Your task to perform on an android device: toggle pop-ups in chrome Image 0: 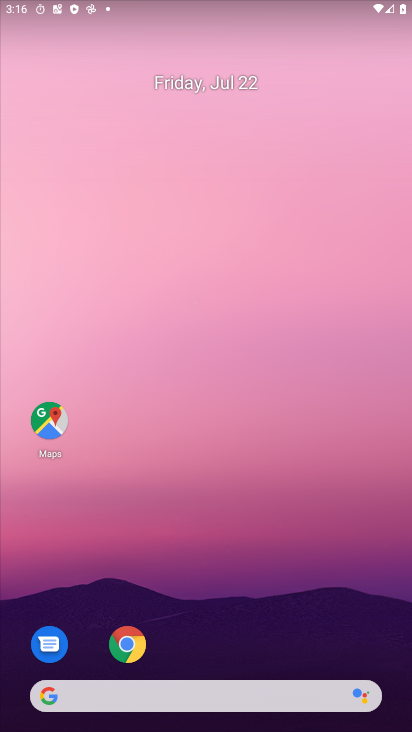
Step 0: drag from (134, 712) to (207, 201)
Your task to perform on an android device: toggle pop-ups in chrome Image 1: 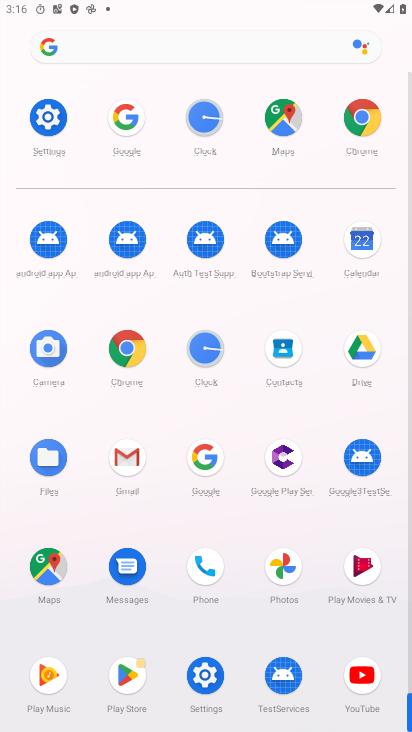
Step 1: click (131, 359)
Your task to perform on an android device: toggle pop-ups in chrome Image 2: 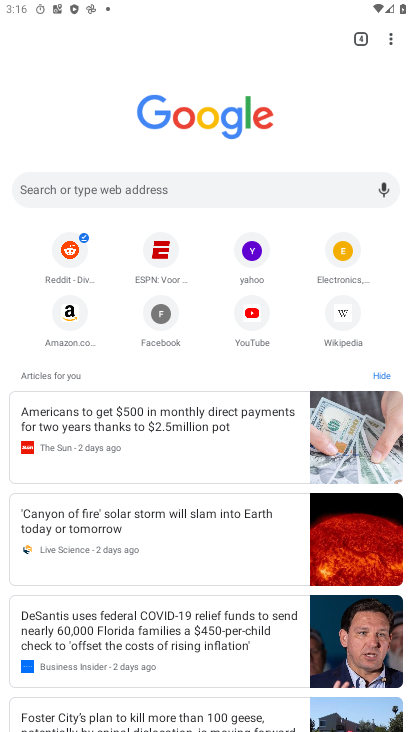
Step 2: click (390, 46)
Your task to perform on an android device: toggle pop-ups in chrome Image 3: 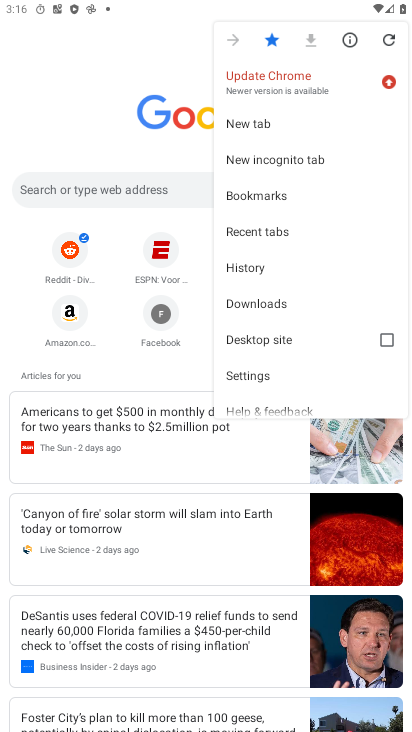
Step 3: click (238, 381)
Your task to perform on an android device: toggle pop-ups in chrome Image 4: 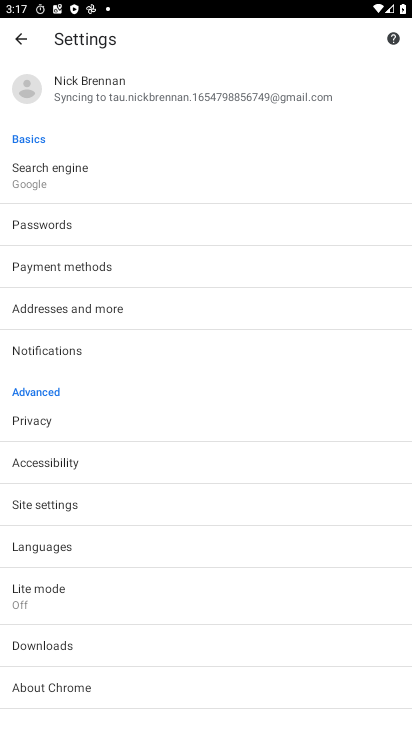
Step 4: click (64, 502)
Your task to perform on an android device: toggle pop-ups in chrome Image 5: 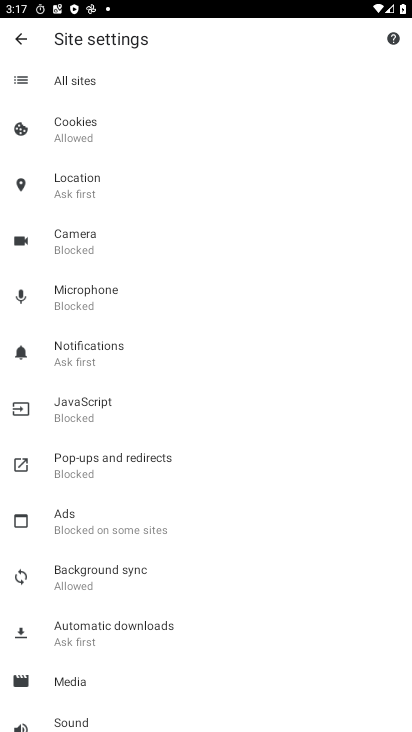
Step 5: click (135, 466)
Your task to perform on an android device: toggle pop-ups in chrome Image 6: 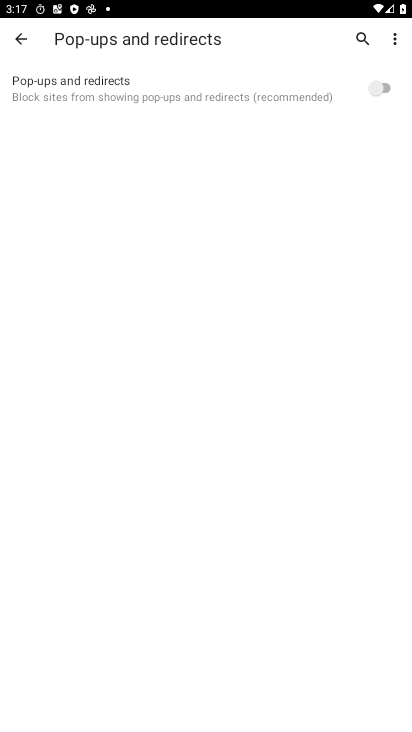
Step 6: click (376, 87)
Your task to perform on an android device: toggle pop-ups in chrome Image 7: 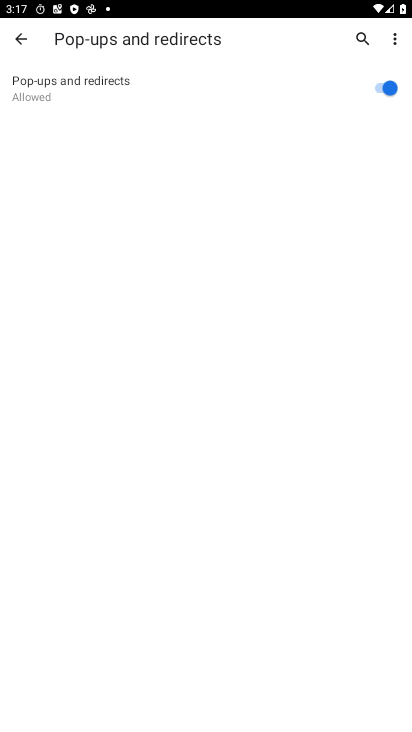
Step 7: task complete